Your task to perform on an android device: check storage Image 0: 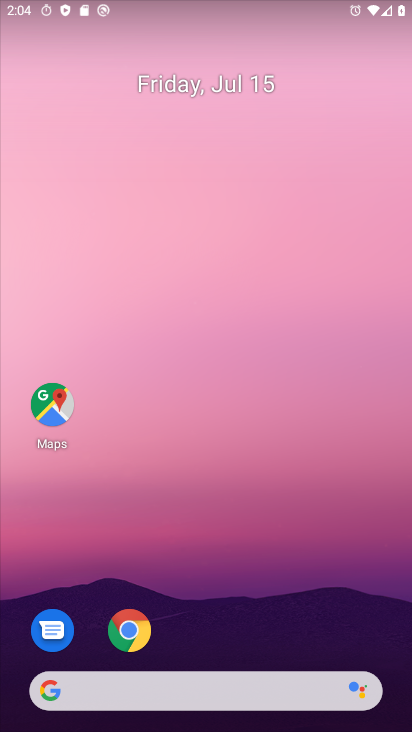
Step 0: drag from (206, 625) to (222, 198)
Your task to perform on an android device: check storage Image 1: 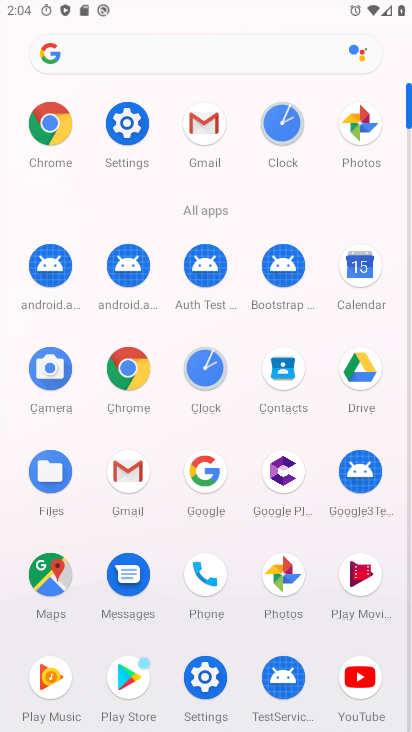
Step 1: click (144, 124)
Your task to perform on an android device: check storage Image 2: 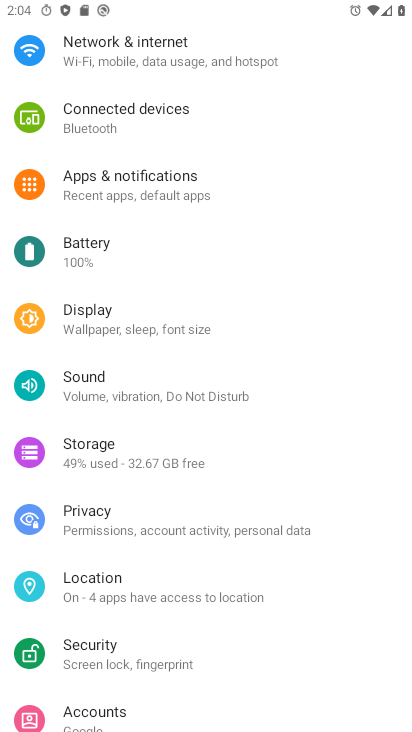
Step 2: click (169, 452)
Your task to perform on an android device: check storage Image 3: 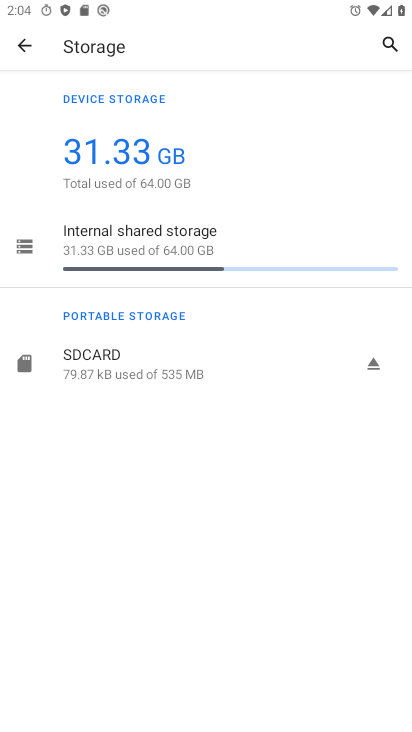
Step 3: task complete